Your task to perform on an android device: Go to privacy settings Image 0: 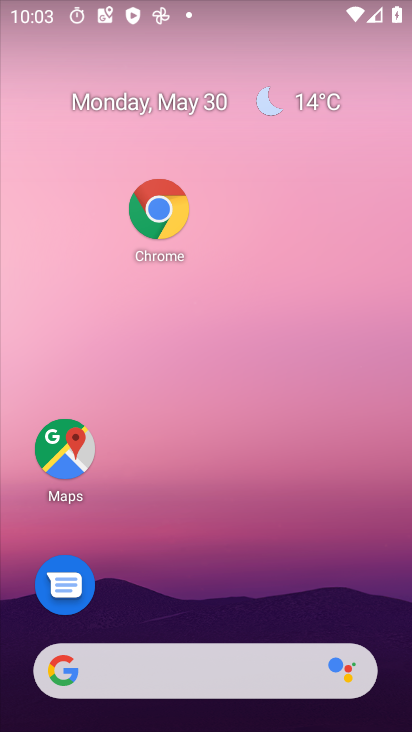
Step 0: drag from (206, 577) to (315, 5)
Your task to perform on an android device: Go to privacy settings Image 1: 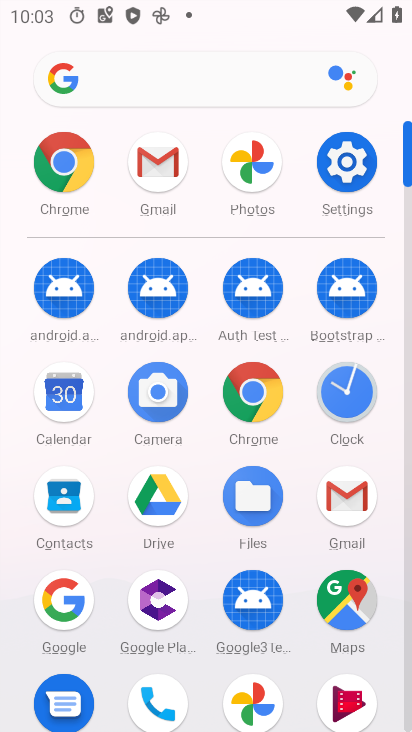
Step 1: click (340, 155)
Your task to perform on an android device: Go to privacy settings Image 2: 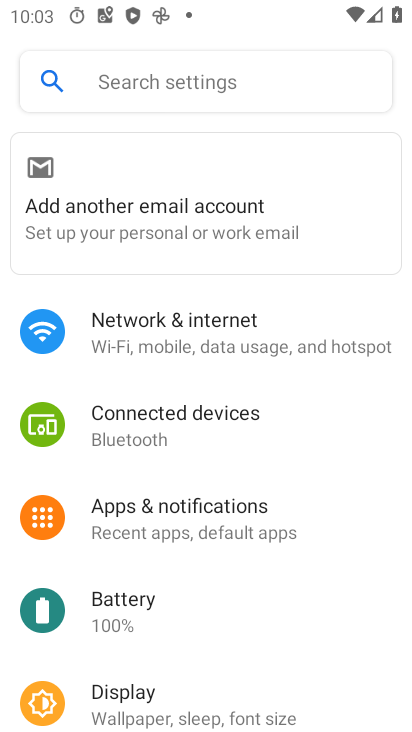
Step 2: drag from (212, 563) to (330, 21)
Your task to perform on an android device: Go to privacy settings Image 3: 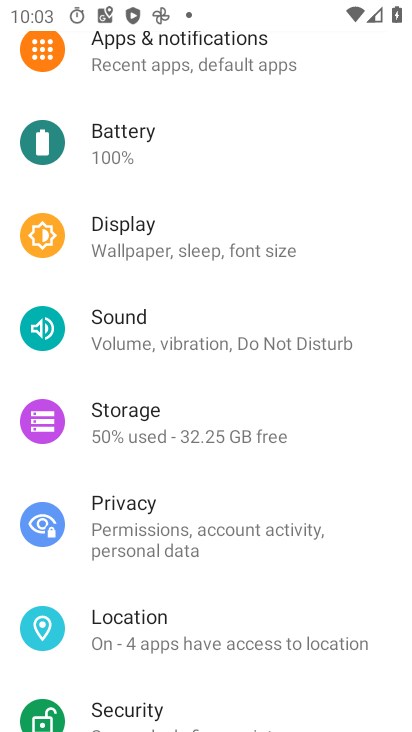
Step 3: click (158, 528)
Your task to perform on an android device: Go to privacy settings Image 4: 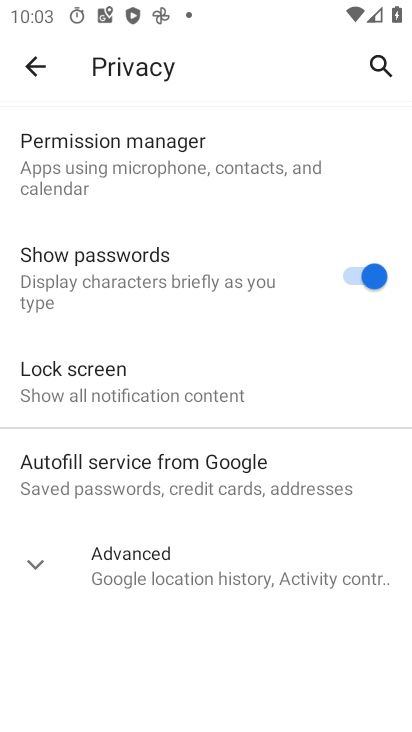
Step 4: task complete